Your task to perform on an android device: Go to accessibility settings Image 0: 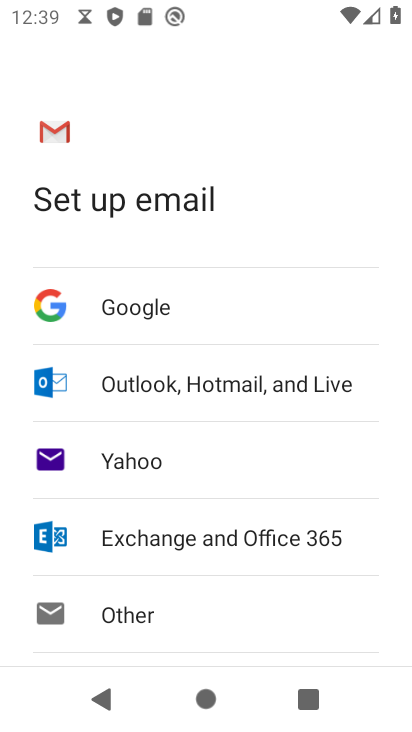
Step 0: press home button
Your task to perform on an android device: Go to accessibility settings Image 1: 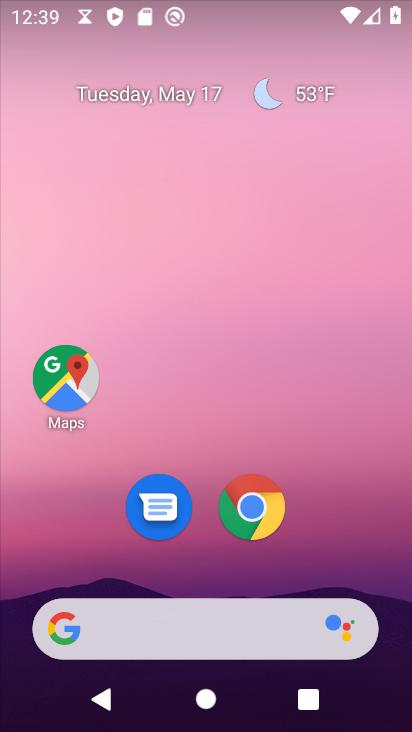
Step 1: drag from (188, 568) to (125, 6)
Your task to perform on an android device: Go to accessibility settings Image 2: 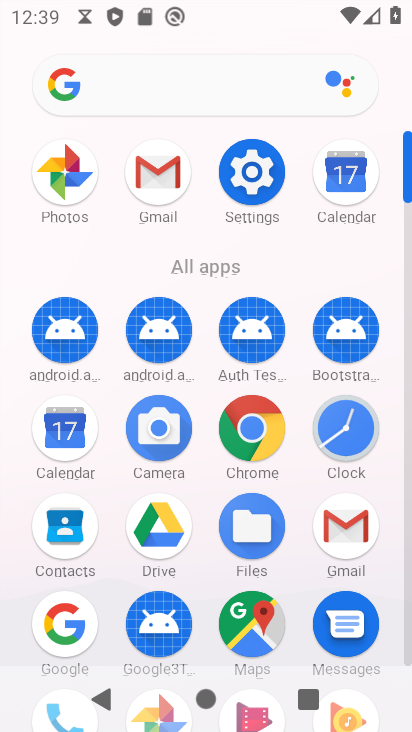
Step 2: click (255, 169)
Your task to perform on an android device: Go to accessibility settings Image 3: 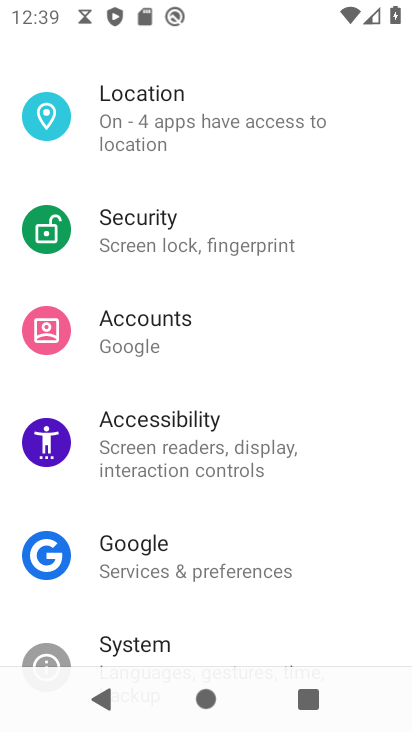
Step 3: click (192, 453)
Your task to perform on an android device: Go to accessibility settings Image 4: 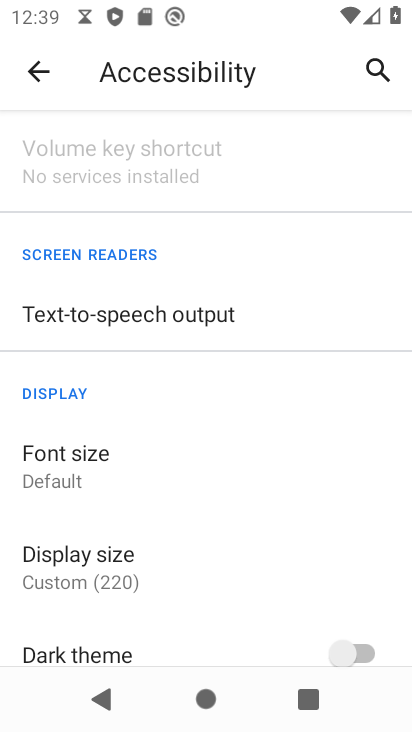
Step 4: task complete